Your task to perform on an android device: Install the Yahoo app Image 0: 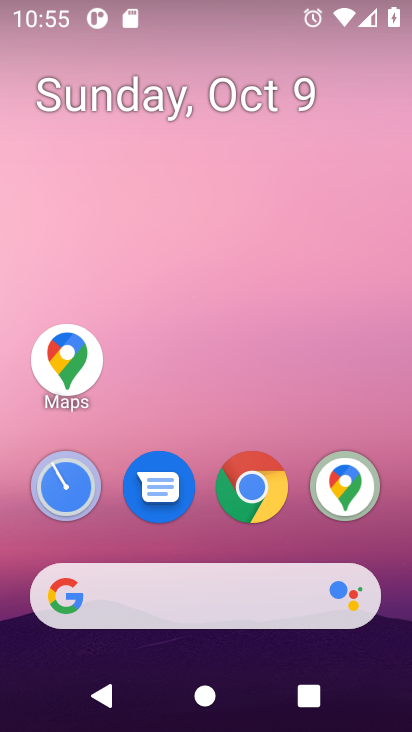
Step 0: drag from (215, 547) to (214, 79)
Your task to perform on an android device: Install the Yahoo app Image 1: 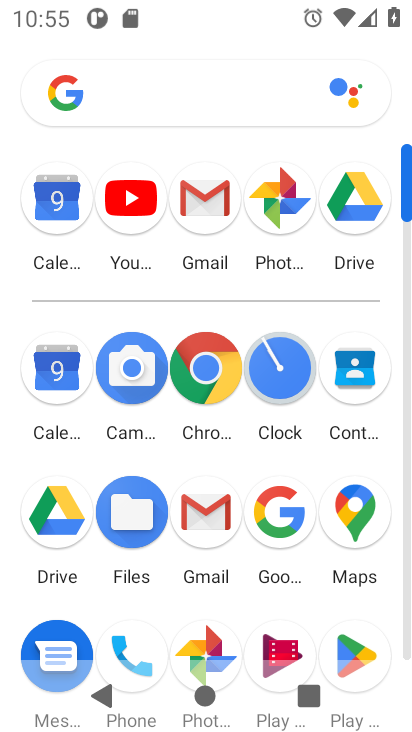
Step 1: click (353, 641)
Your task to perform on an android device: Install the Yahoo app Image 2: 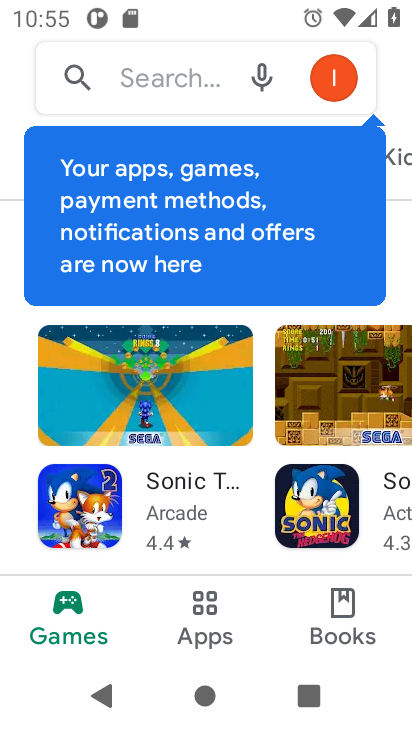
Step 2: click (189, 73)
Your task to perform on an android device: Install the Yahoo app Image 3: 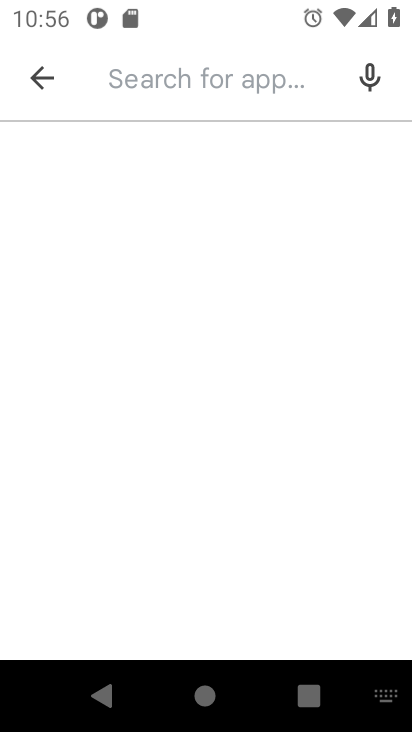
Step 3: type "Yahoo app"
Your task to perform on an android device: Install the Yahoo app Image 4: 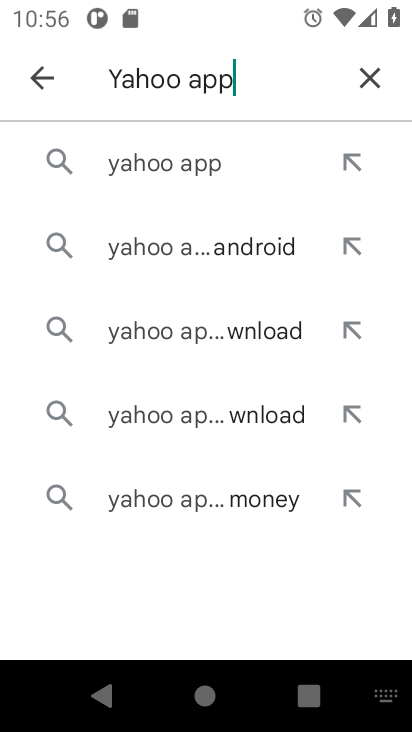
Step 4: click (164, 163)
Your task to perform on an android device: Install the Yahoo app Image 5: 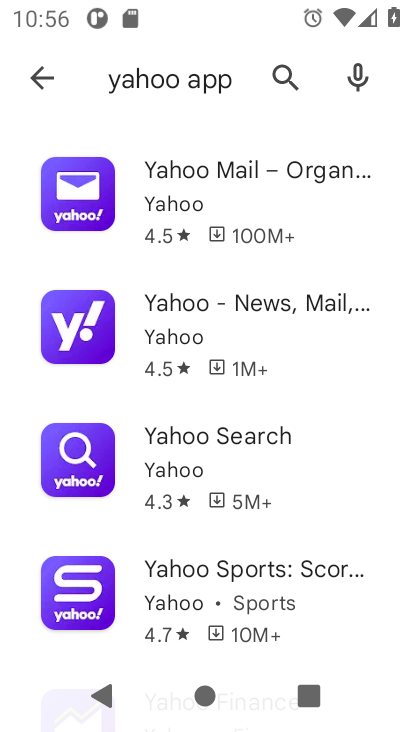
Step 5: click (164, 163)
Your task to perform on an android device: Install the Yahoo app Image 6: 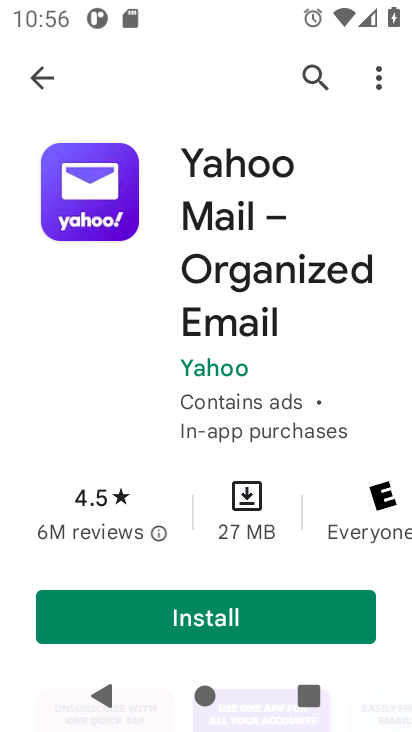
Step 6: click (188, 628)
Your task to perform on an android device: Install the Yahoo app Image 7: 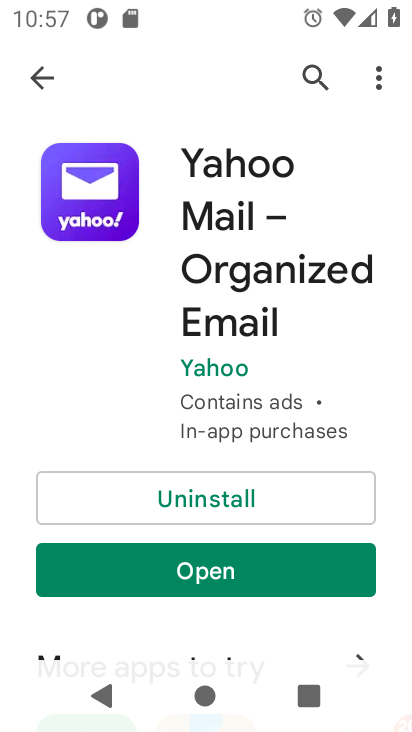
Step 7: task complete